Your task to perform on an android device: change the clock style Image 0: 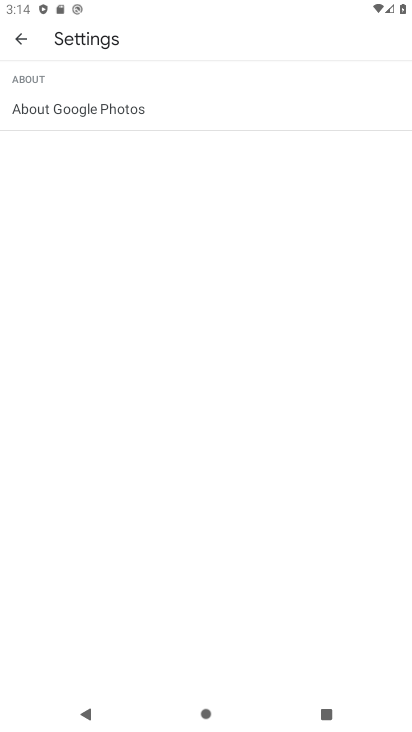
Step 0: press home button
Your task to perform on an android device: change the clock style Image 1: 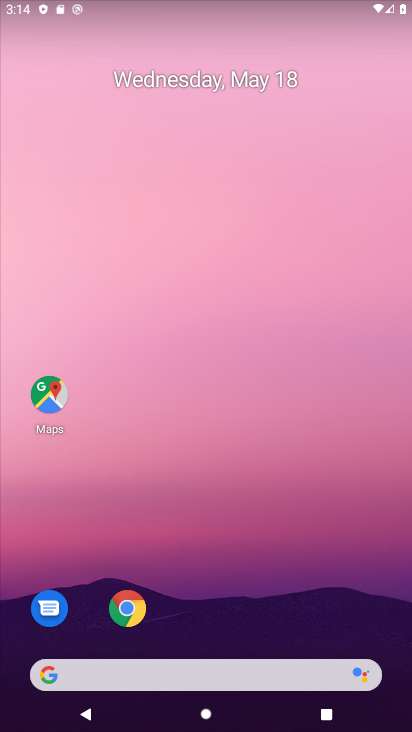
Step 1: drag from (193, 619) to (396, 147)
Your task to perform on an android device: change the clock style Image 2: 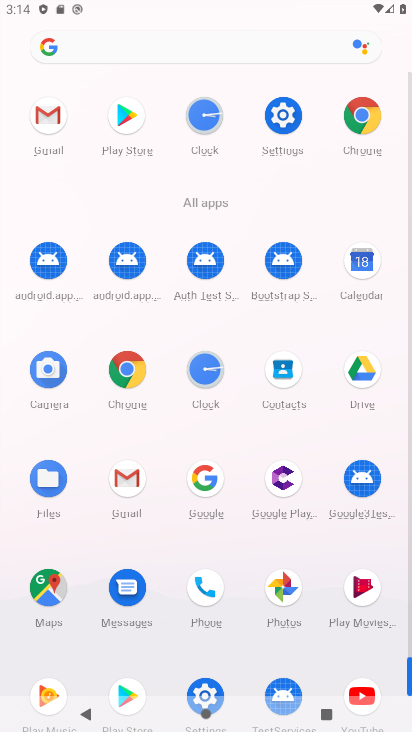
Step 2: click (198, 137)
Your task to perform on an android device: change the clock style Image 3: 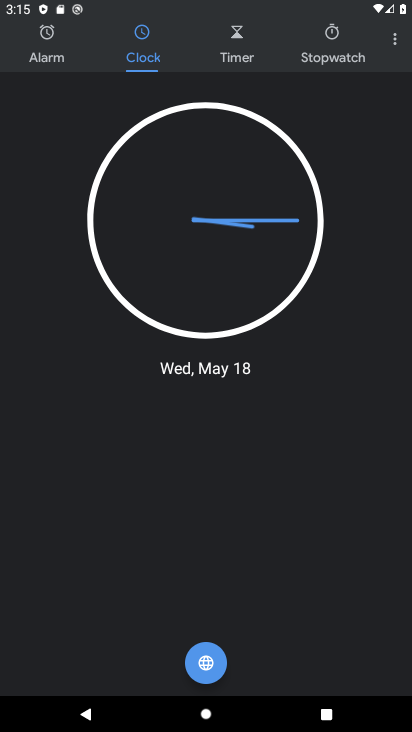
Step 3: click (388, 32)
Your task to perform on an android device: change the clock style Image 4: 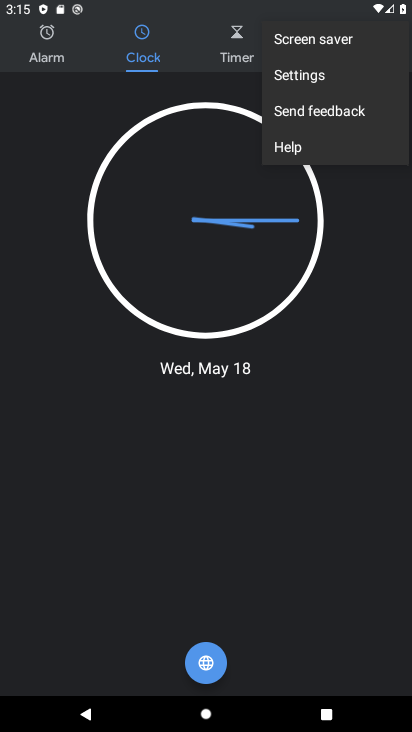
Step 4: click (284, 85)
Your task to perform on an android device: change the clock style Image 5: 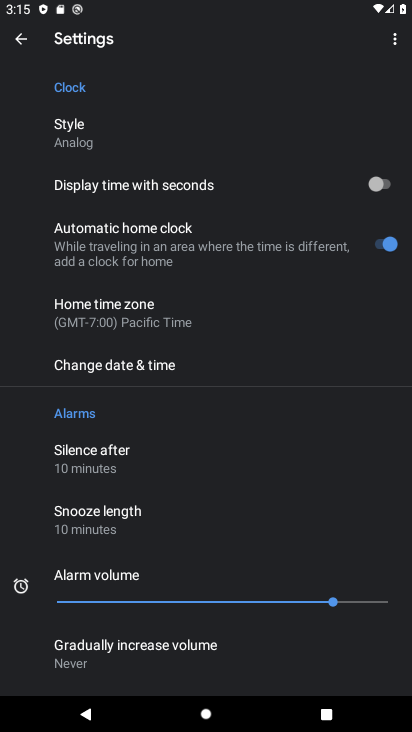
Step 5: click (87, 138)
Your task to perform on an android device: change the clock style Image 6: 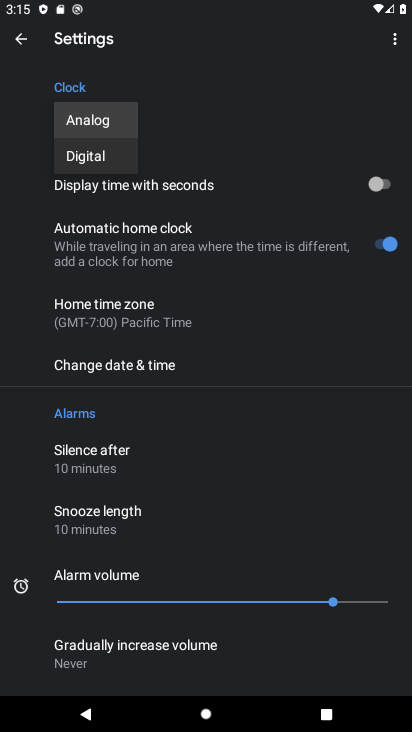
Step 6: click (95, 156)
Your task to perform on an android device: change the clock style Image 7: 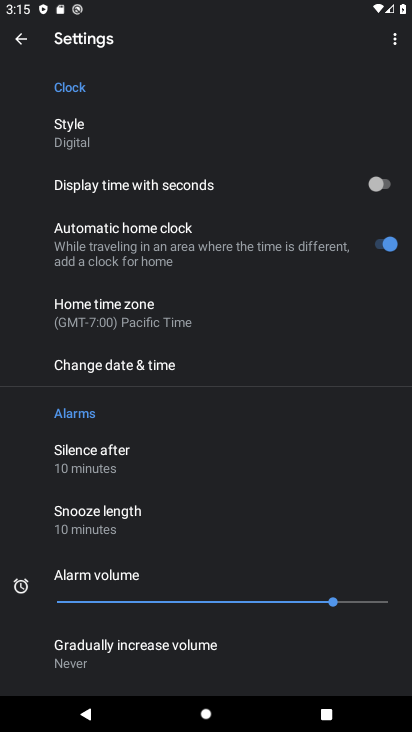
Step 7: task complete